Your task to perform on an android device: open a bookmark in the chrome app Image 0: 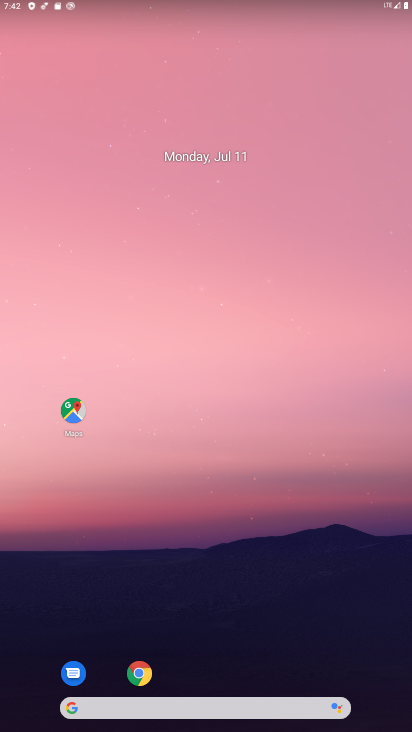
Step 0: click (131, 674)
Your task to perform on an android device: open a bookmark in the chrome app Image 1: 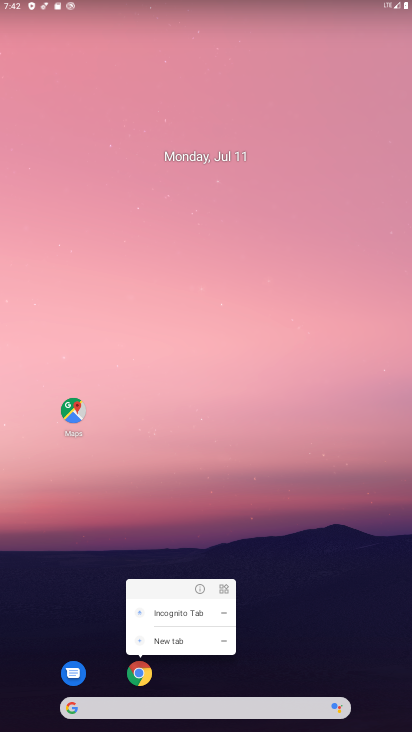
Step 1: click (142, 675)
Your task to perform on an android device: open a bookmark in the chrome app Image 2: 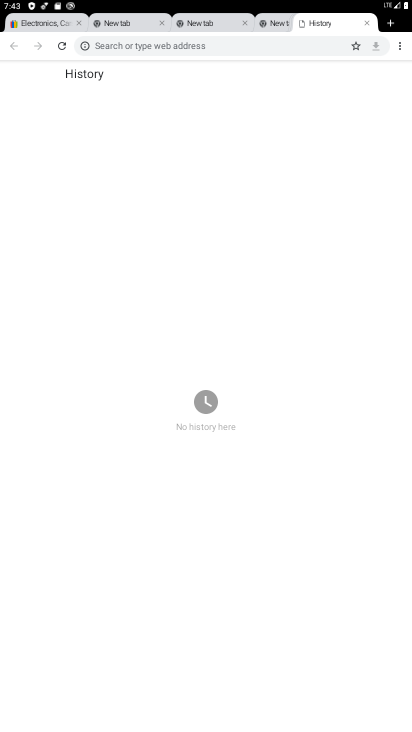
Step 2: click (367, 24)
Your task to perform on an android device: open a bookmark in the chrome app Image 3: 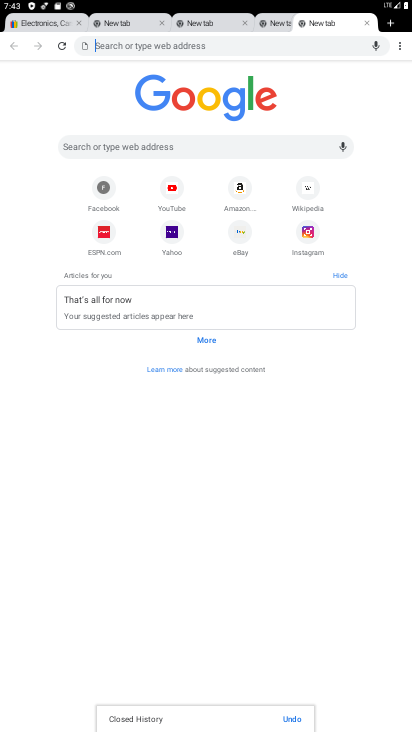
Step 3: click (367, 24)
Your task to perform on an android device: open a bookmark in the chrome app Image 4: 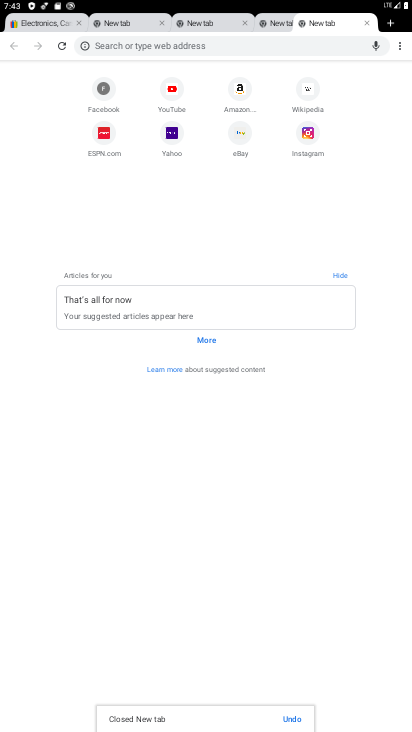
Step 4: click (367, 24)
Your task to perform on an android device: open a bookmark in the chrome app Image 5: 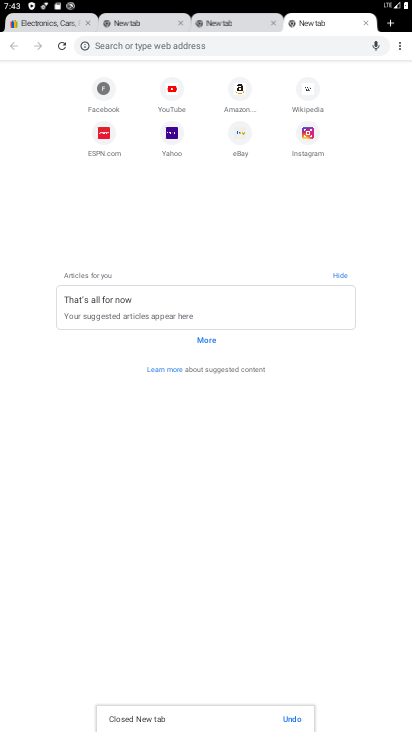
Step 5: click (362, 23)
Your task to perform on an android device: open a bookmark in the chrome app Image 6: 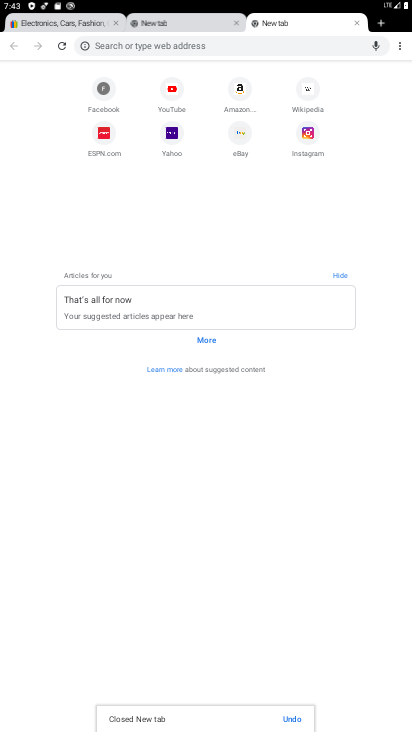
Step 6: click (357, 19)
Your task to perform on an android device: open a bookmark in the chrome app Image 7: 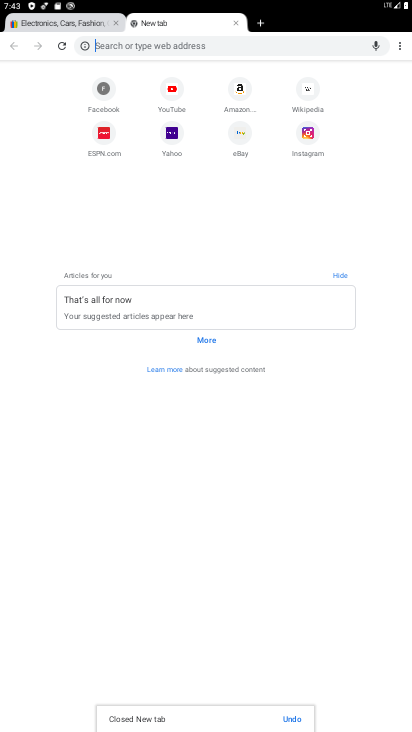
Step 7: click (235, 22)
Your task to perform on an android device: open a bookmark in the chrome app Image 8: 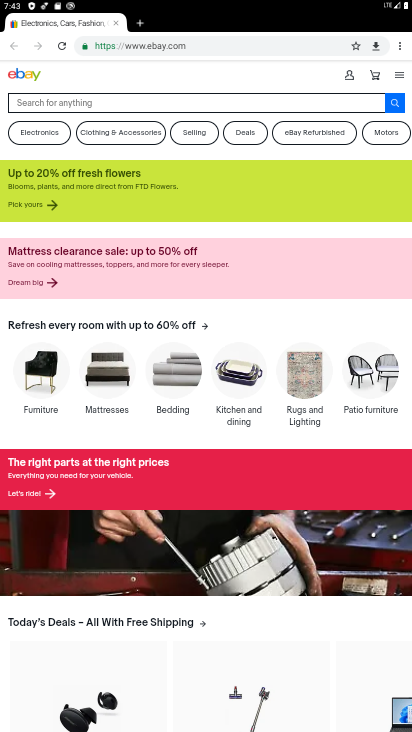
Step 8: click (398, 44)
Your task to perform on an android device: open a bookmark in the chrome app Image 9: 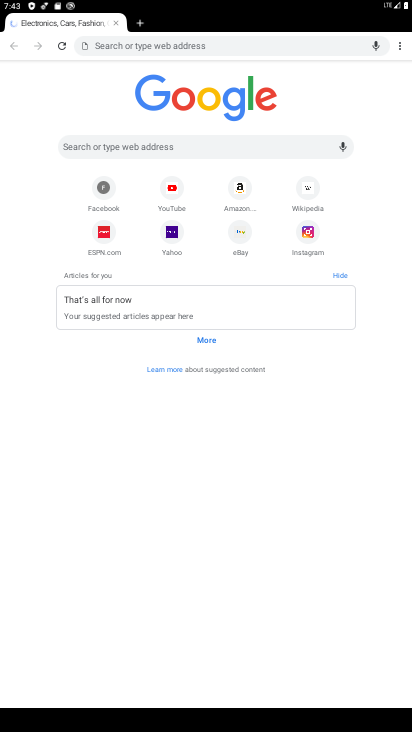
Step 9: click (398, 44)
Your task to perform on an android device: open a bookmark in the chrome app Image 10: 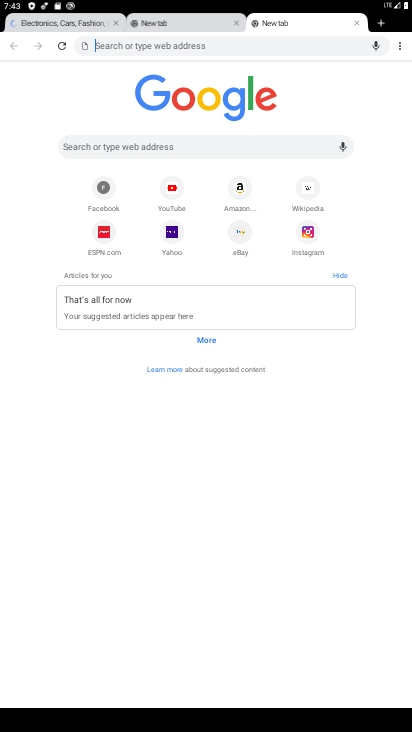
Step 10: click (405, 46)
Your task to perform on an android device: open a bookmark in the chrome app Image 11: 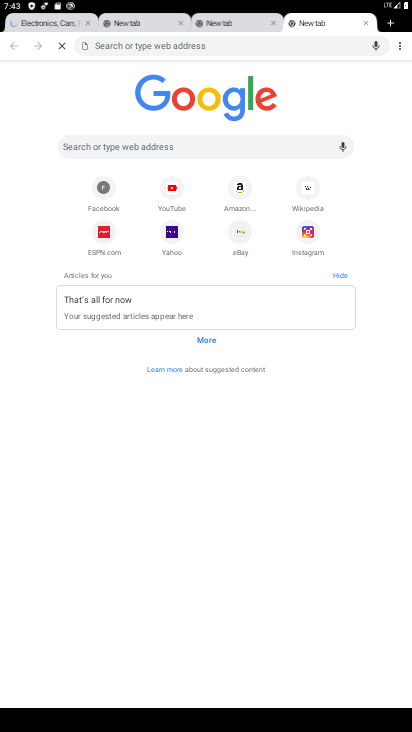
Step 11: click (400, 46)
Your task to perform on an android device: open a bookmark in the chrome app Image 12: 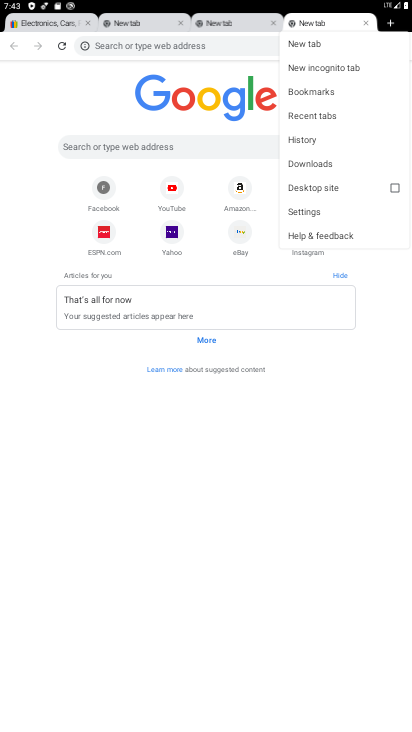
Step 12: click (306, 208)
Your task to perform on an android device: open a bookmark in the chrome app Image 13: 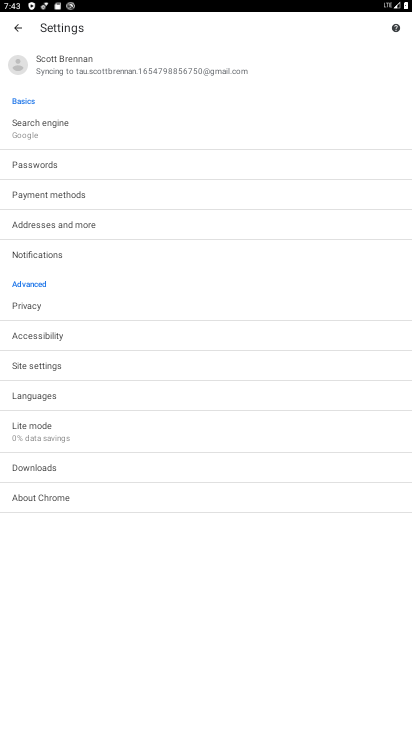
Step 13: click (10, 26)
Your task to perform on an android device: open a bookmark in the chrome app Image 14: 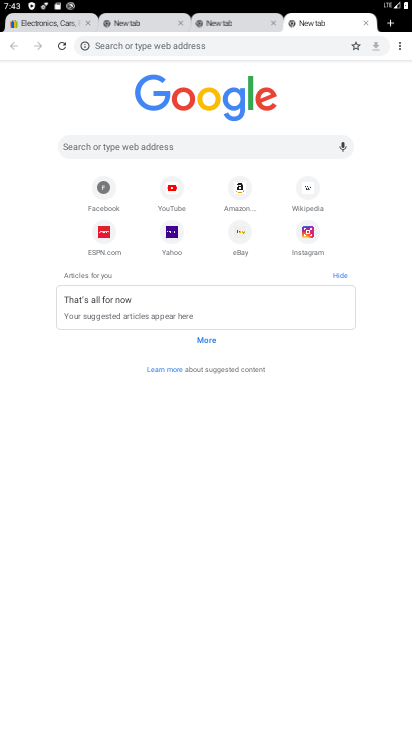
Step 14: click (396, 44)
Your task to perform on an android device: open a bookmark in the chrome app Image 15: 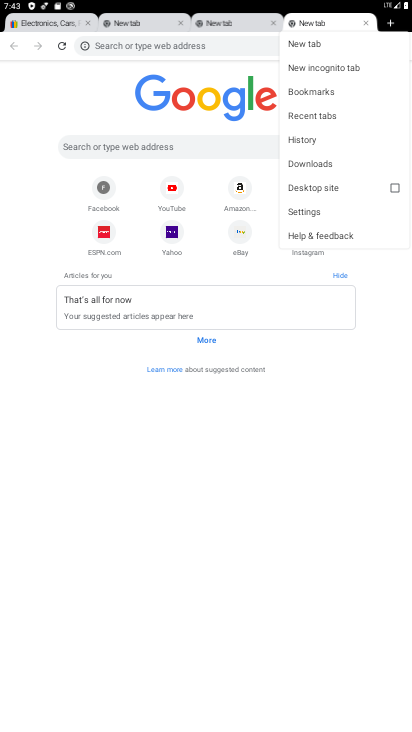
Step 15: click (318, 91)
Your task to perform on an android device: open a bookmark in the chrome app Image 16: 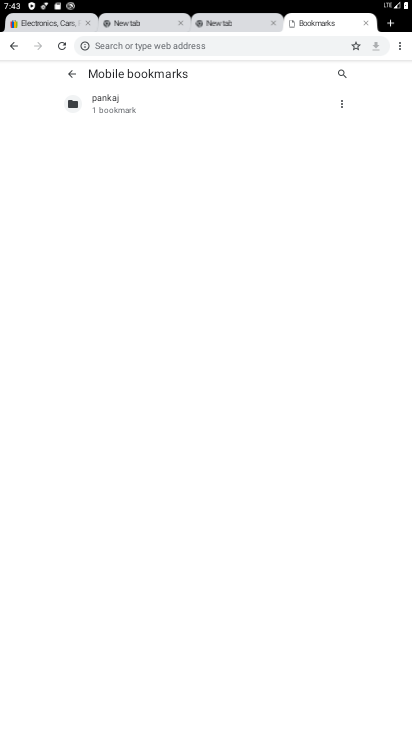
Step 16: task complete